Your task to perform on an android device: change alarm snooze length Image 0: 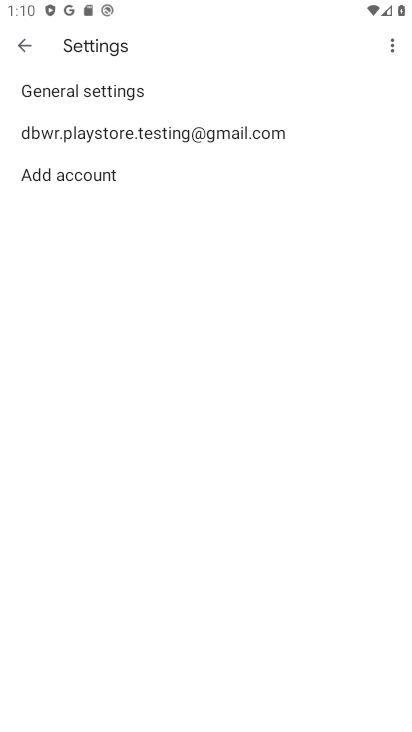
Step 0: press home button
Your task to perform on an android device: change alarm snooze length Image 1: 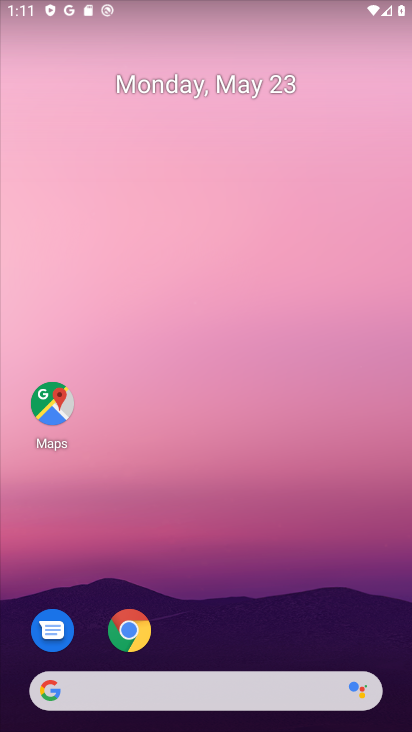
Step 1: drag from (230, 547) to (135, 127)
Your task to perform on an android device: change alarm snooze length Image 2: 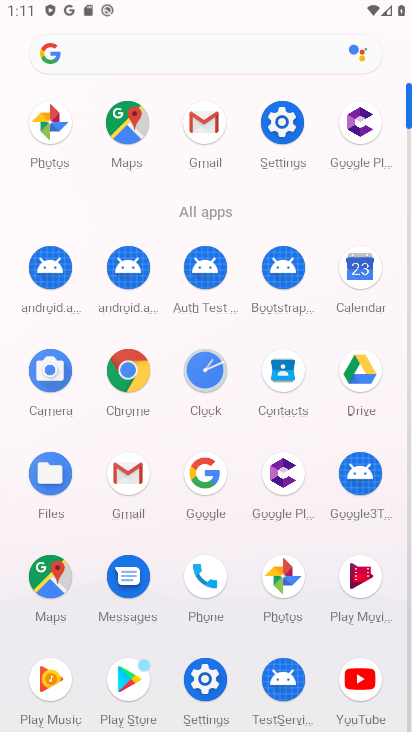
Step 2: click (203, 370)
Your task to perform on an android device: change alarm snooze length Image 3: 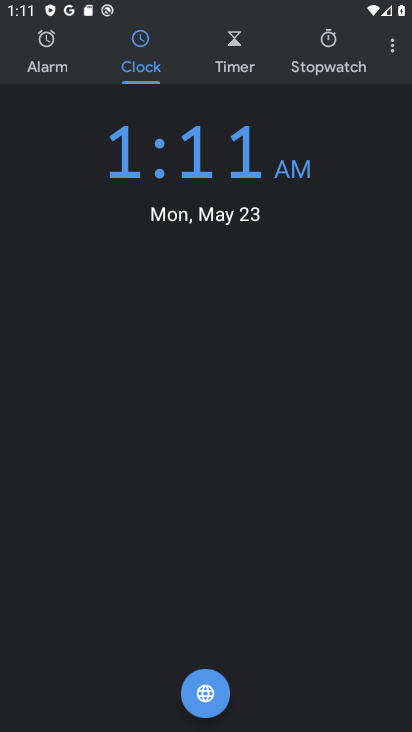
Step 3: click (384, 60)
Your task to perform on an android device: change alarm snooze length Image 4: 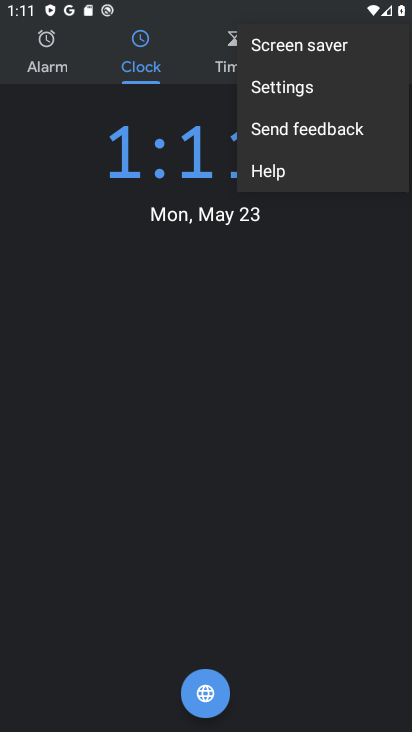
Step 4: click (301, 86)
Your task to perform on an android device: change alarm snooze length Image 5: 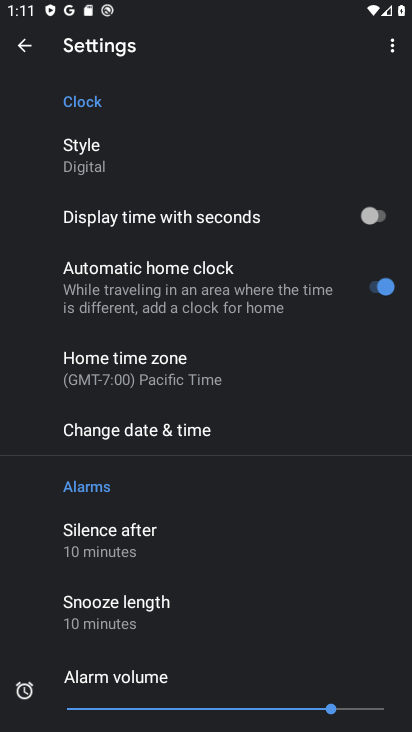
Step 5: click (139, 604)
Your task to perform on an android device: change alarm snooze length Image 6: 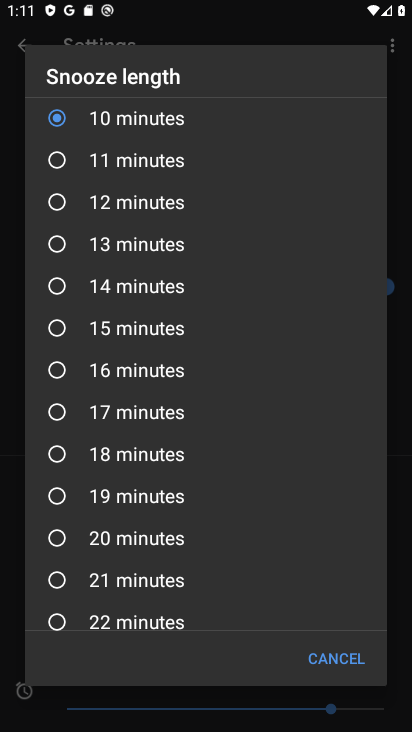
Step 6: click (57, 246)
Your task to perform on an android device: change alarm snooze length Image 7: 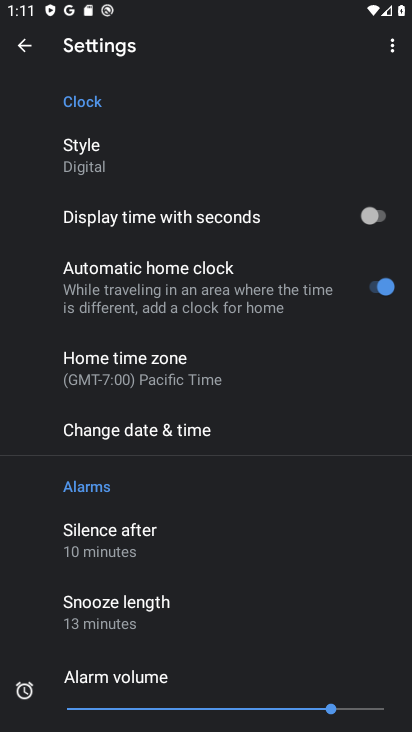
Step 7: task complete